Your task to perform on an android device: change your default location settings in chrome Image 0: 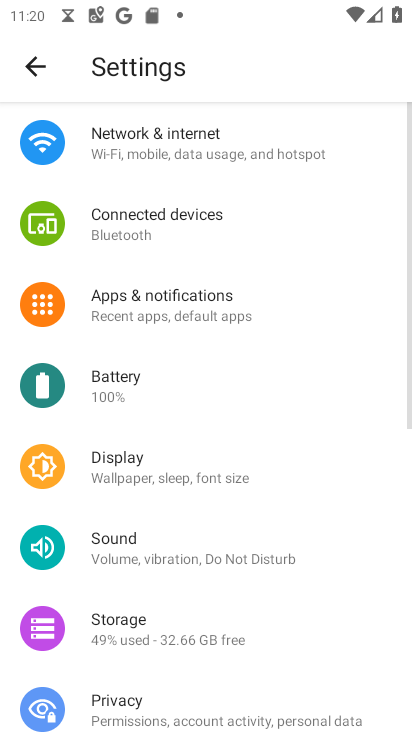
Step 0: press home button
Your task to perform on an android device: change your default location settings in chrome Image 1: 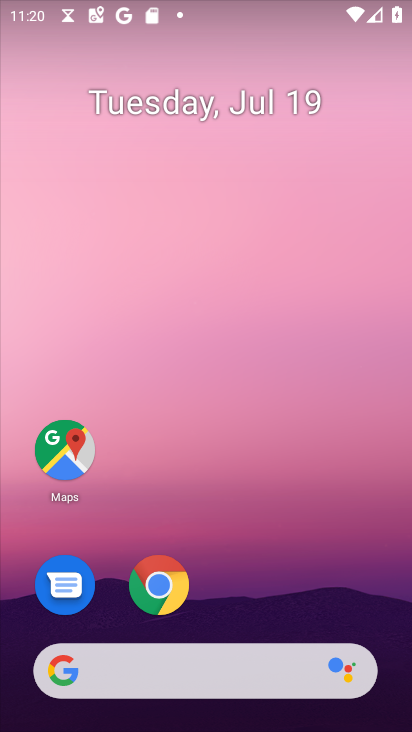
Step 1: click (162, 595)
Your task to perform on an android device: change your default location settings in chrome Image 2: 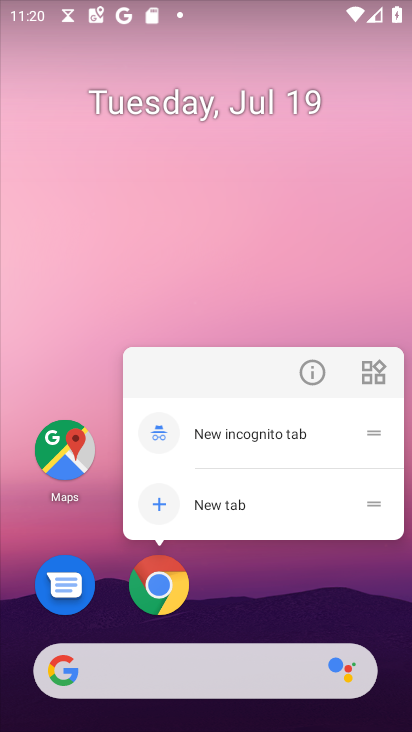
Step 2: click (158, 576)
Your task to perform on an android device: change your default location settings in chrome Image 3: 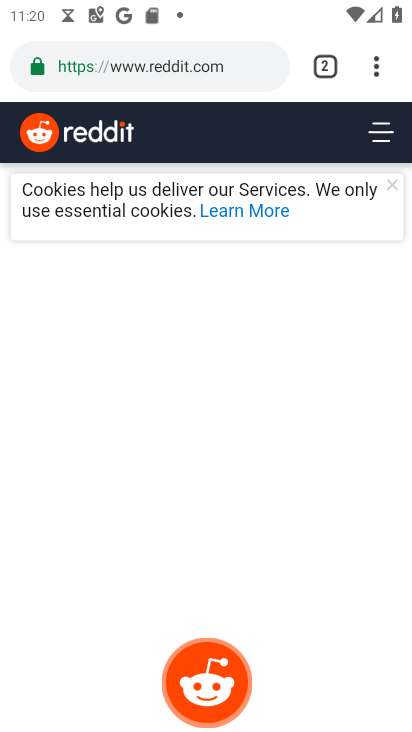
Step 3: drag from (371, 70) to (211, 589)
Your task to perform on an android device: change your default location settings in chrome Image 4: 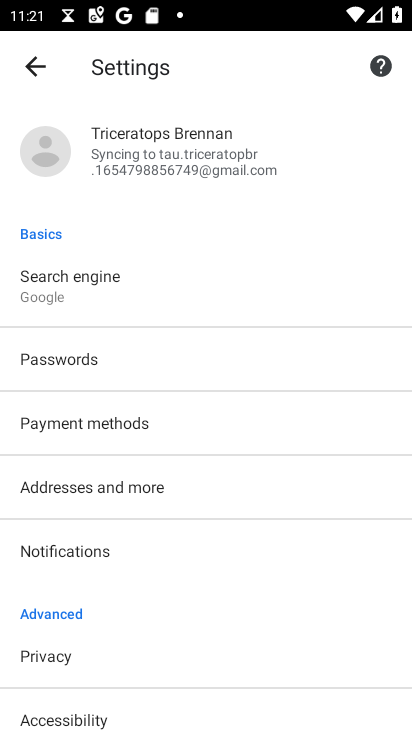
Step 4: drag from (124, 611) to (223, 335)
Your task to perform on an android device: change your default location settings in chrome Image 5: 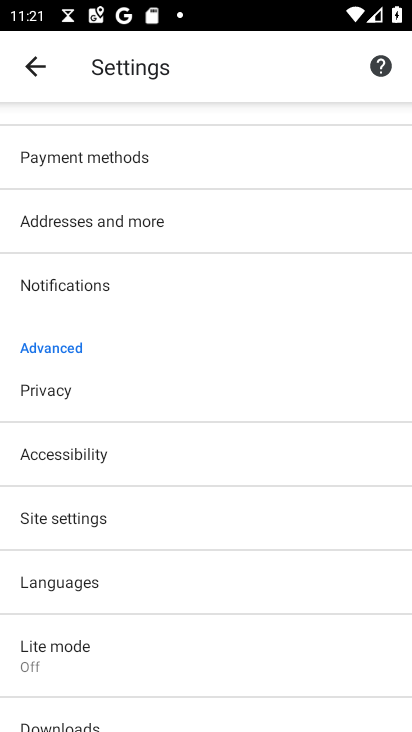
Step 5: click (76, 518)
Your task to perform on an android device: change your default location settings in chrome Image 6: 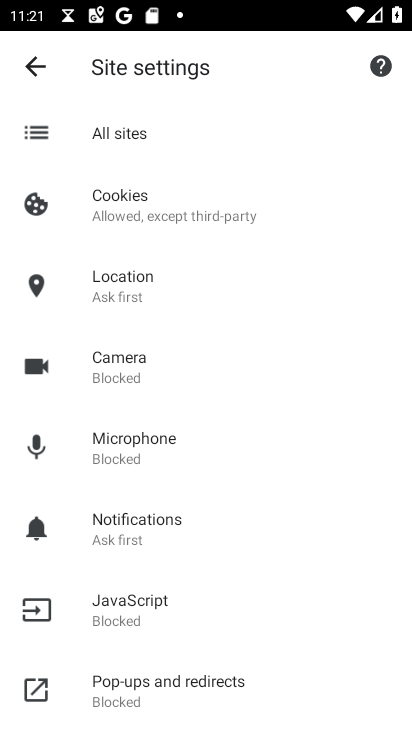
Step 6: click (128, 305)
Your task to perform on an android device: change your default location settings in chrome Image 7: 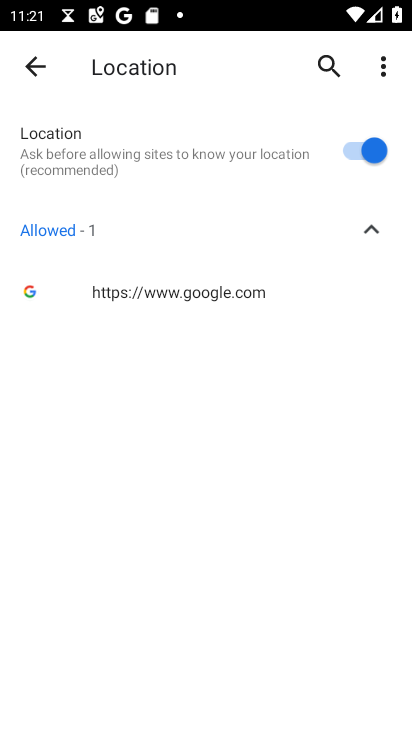
Step 7: click (356, 150)
Your task to perform on an android device: change your default location settings in chrome Image 8: 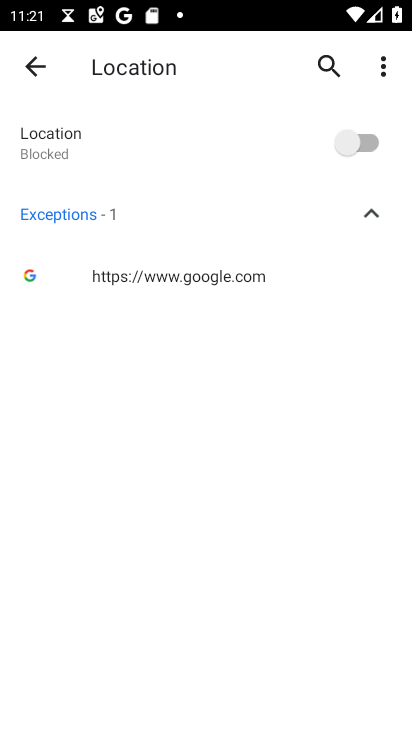
Step 8: task complete